Your task to perform on an android device: install app "Fetch Rewards" Image 0: 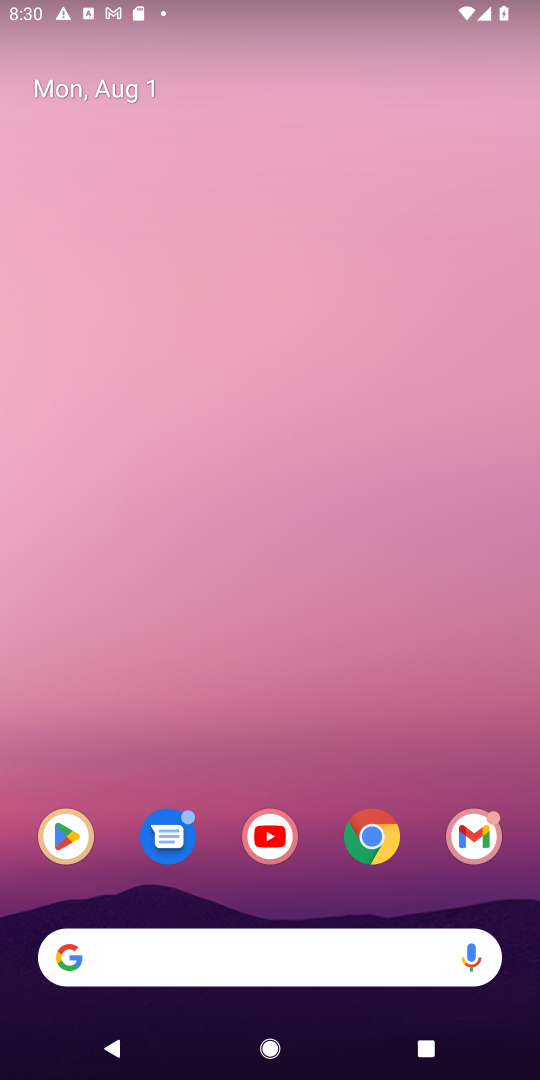
Step 0: press home button
Your task to perform on an android device: install app "Fetch Rewards" Image 1: 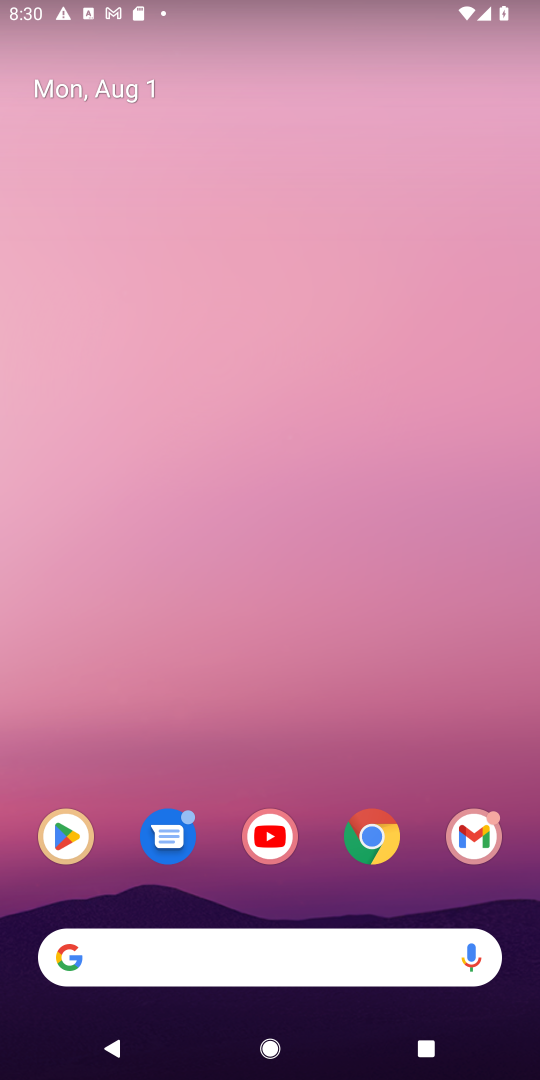
Step 1: click (61, 836)
Your task to perform on an android device: install app "Fetch Rewards" Image 2: 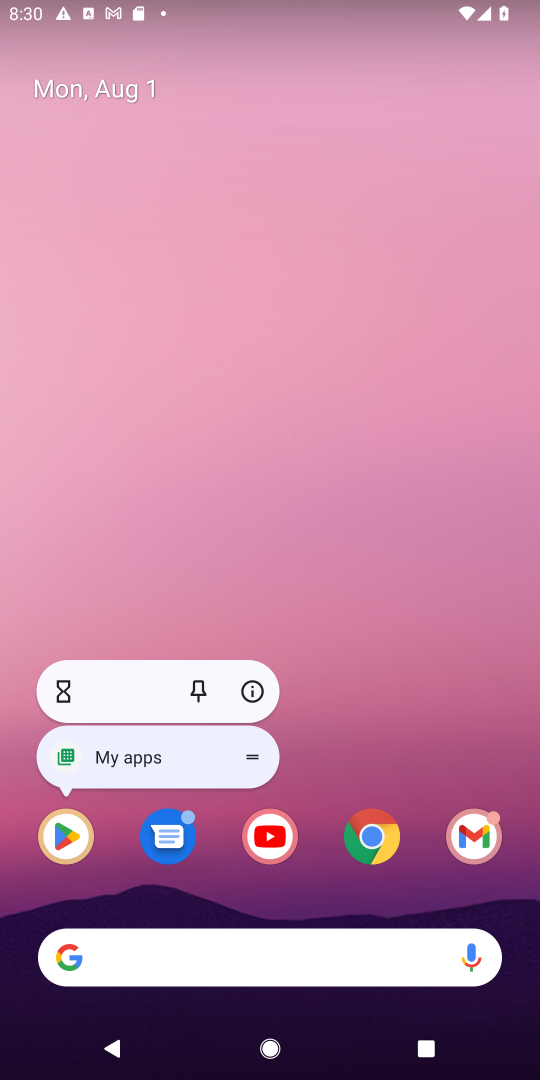
Step 2: click (61, 836)
Your task to perform on an android device: install app "Fetch Rewards" Image 3: 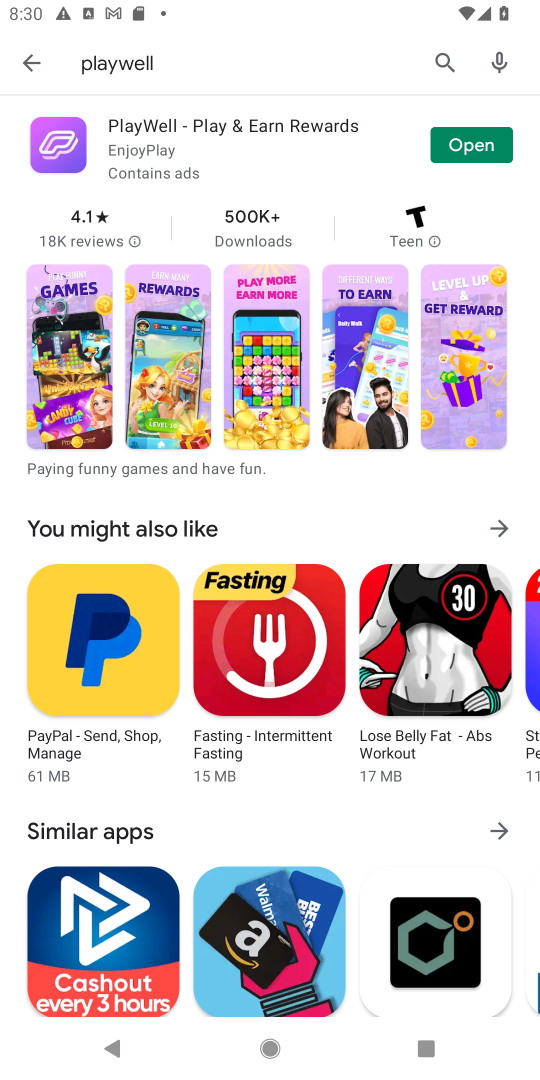
Step 3: click (443, 58)
Your task to perform on an android device: install app "Fetch Rewards" Image 4: 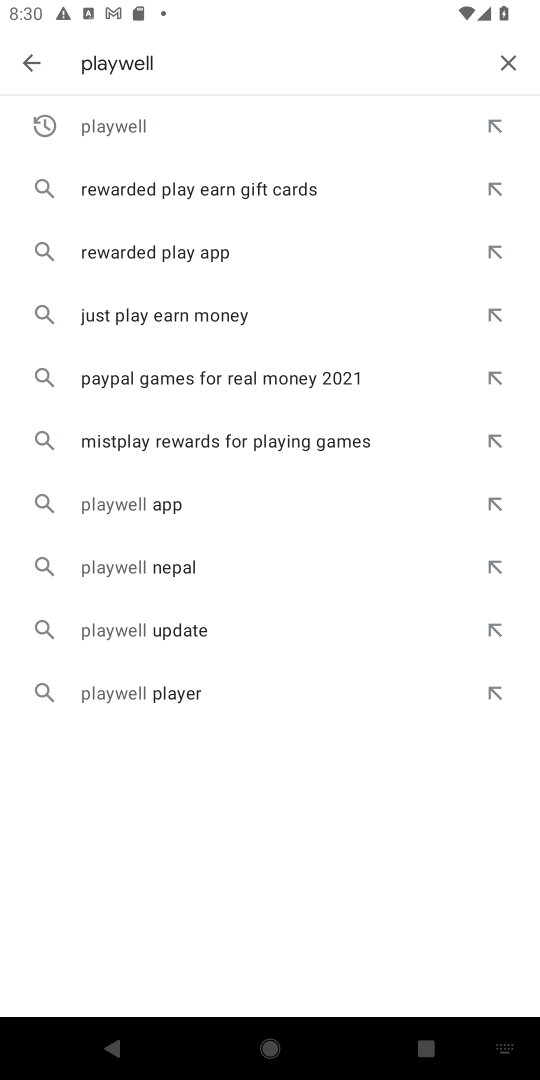
Step 4: click (498, 57)
Your task to perform on an android device: install app "Fetch Rewards" Image 5: 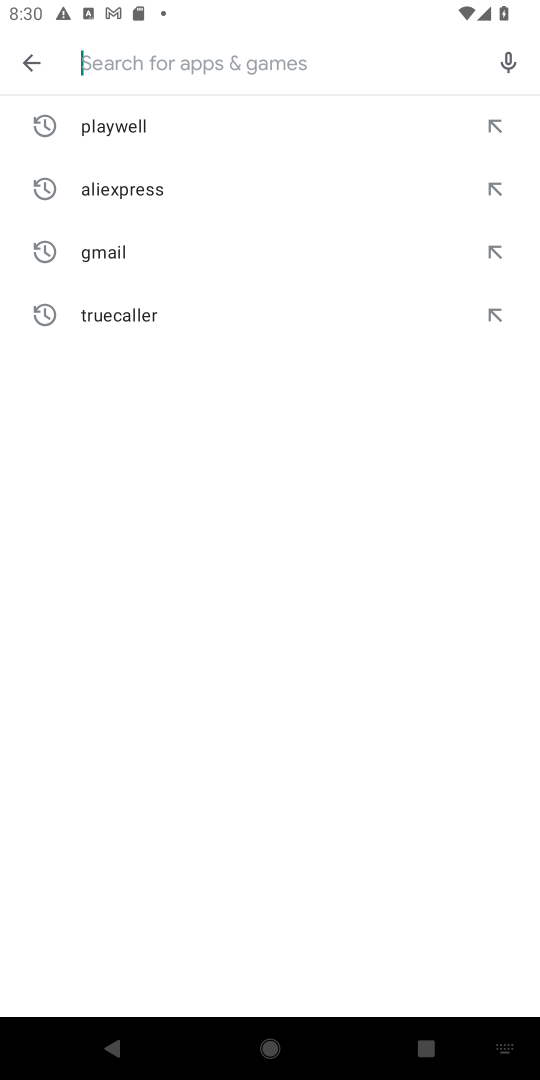
Step 5: type "Fetch Rewards"
Your task to perform on an android device: install app "Fetch Rewards" Image 6: 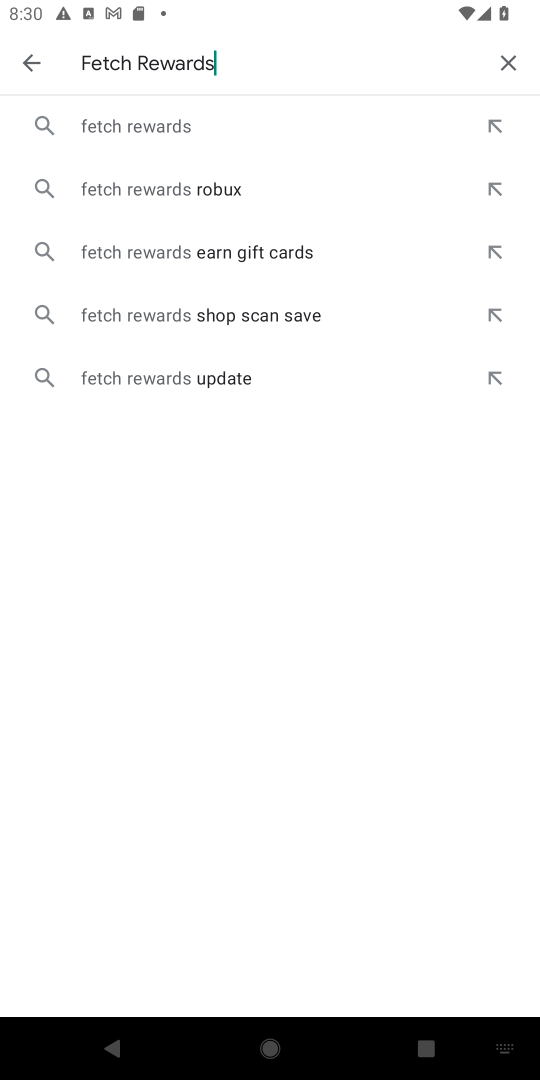
Step 6: click (139, 114)
Your task to perform on an android device: install app "Fetch Rewards" Image 7: 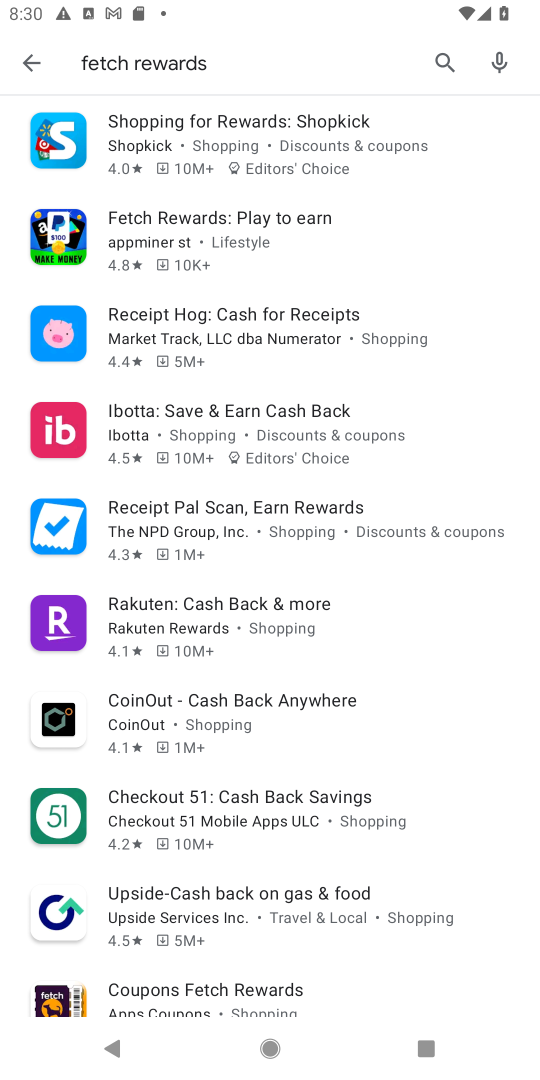
Step 7: click (217, 222)
Your task to perform on an android device: install app "Fetch Rewards" Image 8: 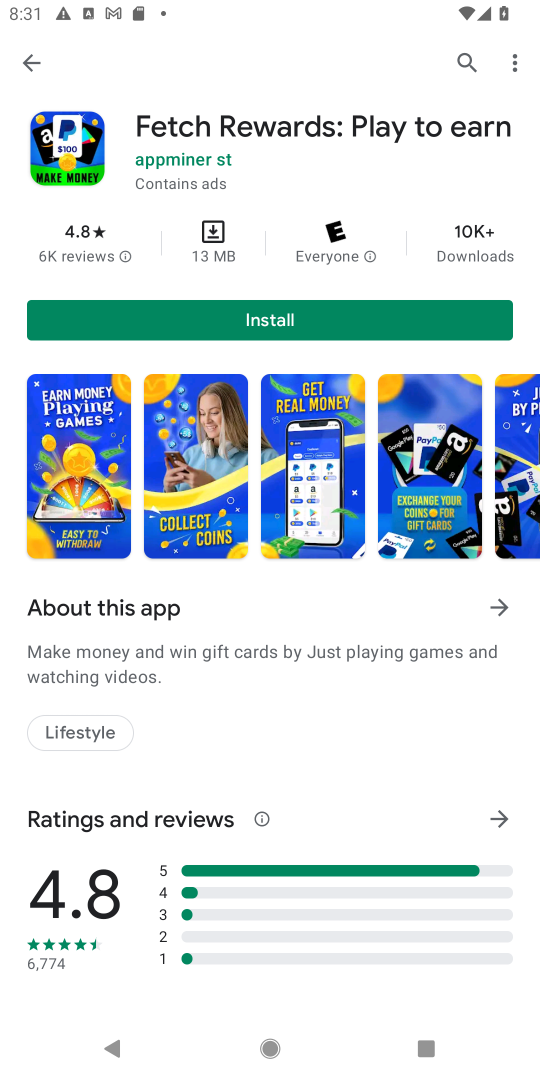
Step 8: click (268, 320)
Your task to perform on an android device: install app "Fetch Rewards" Image 9: 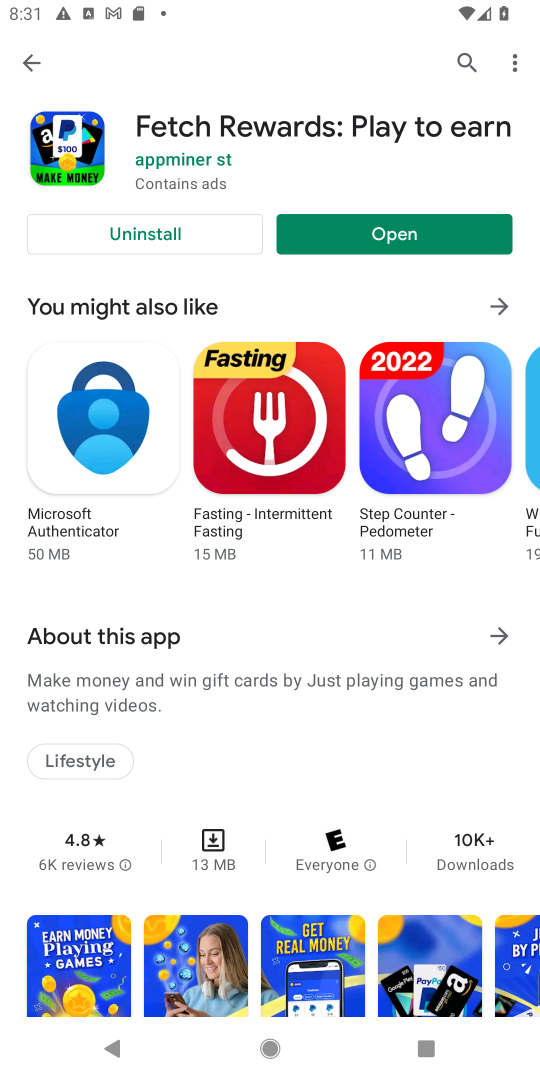
Step 9: task complete